Your task to perform on an android device: See recent photos Image 0: 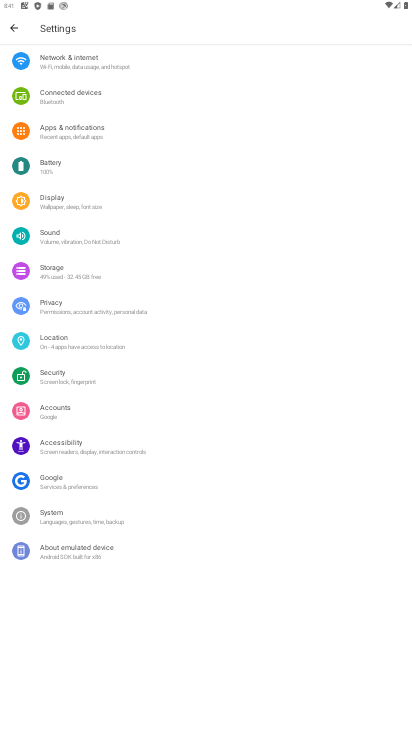
Step 0: press home button
Your task to perform on an android device: See recent photos Image 1: 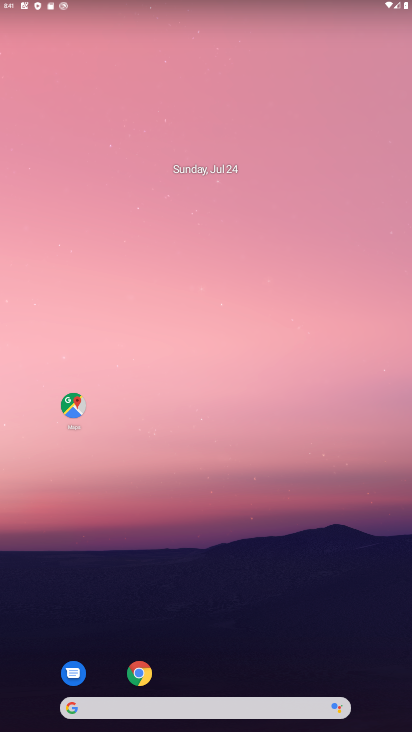
Step 1: drag from (200, 500) to (262, 152)
Your task to perform on an android device: See recent photos Image 2: 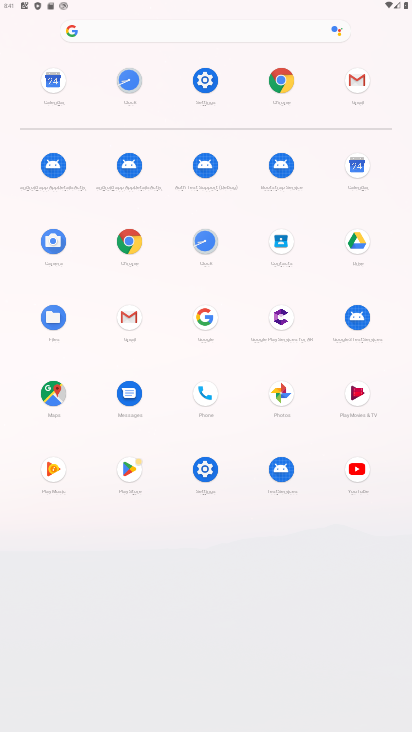
Step 2: click (276, 395)
Your task to perform on an android device: See recent photos Image 3: 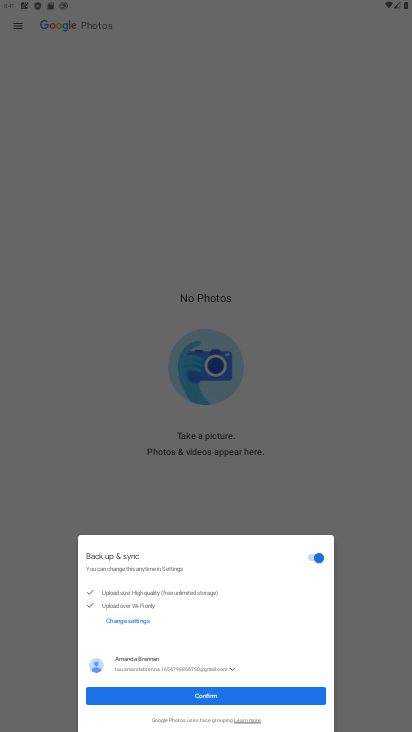
Step 3: click (195, 699)
Your task to perform on an android device: See recent photos Image 4: 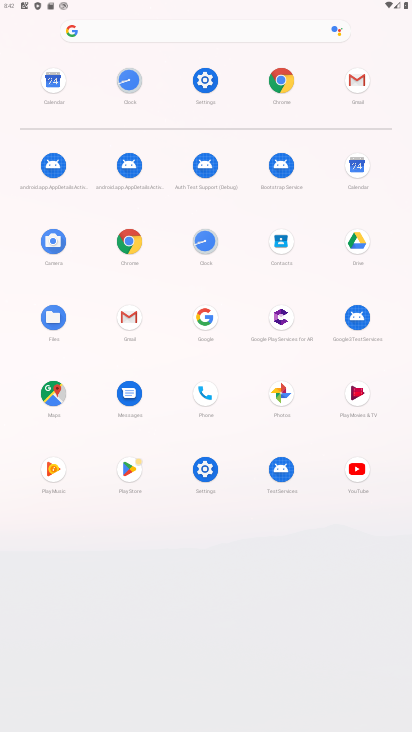
Step 4: click (280, 400)
Your task to perform on an android device: See recent photos Image 5: 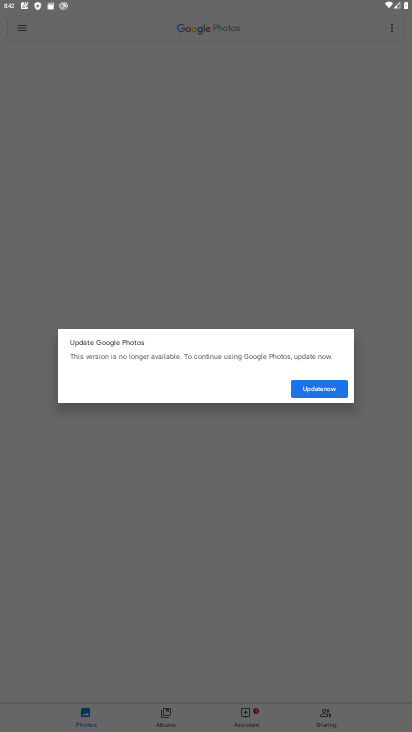
Step 5: click (304, 386)
Your task to perform on an android device: See recent photos Image 6: 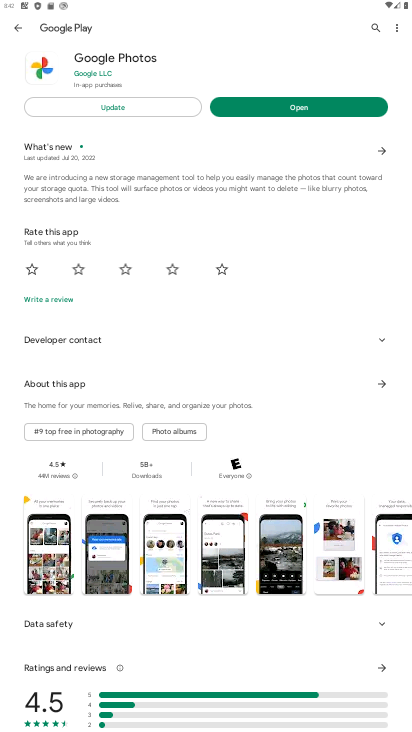
Step 6: click (98, 109)
Your task to perform on an android device: See recent photos Image 7: 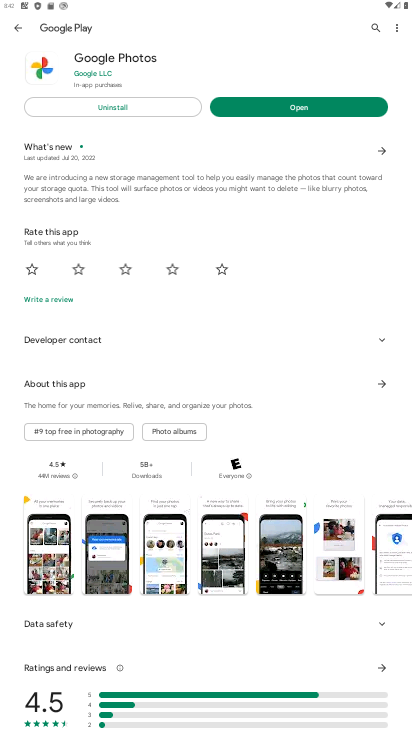
Step 7: click (274, 97)
Your task to perform on an android device: See recent photos Image 8: 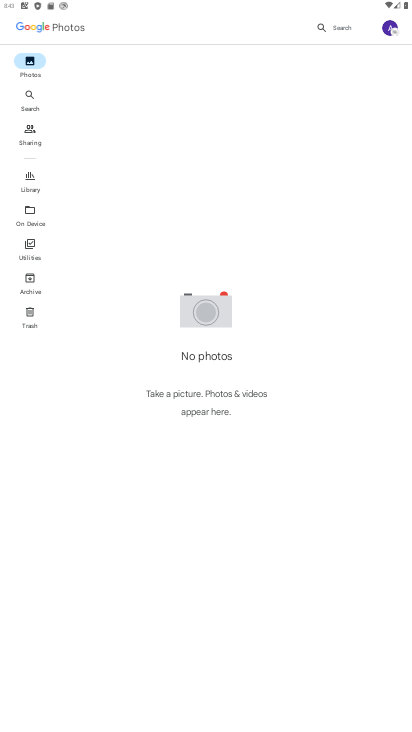
Step 8: task complete